Your task to perform on an android device: Turn on the flashlight Image 0: 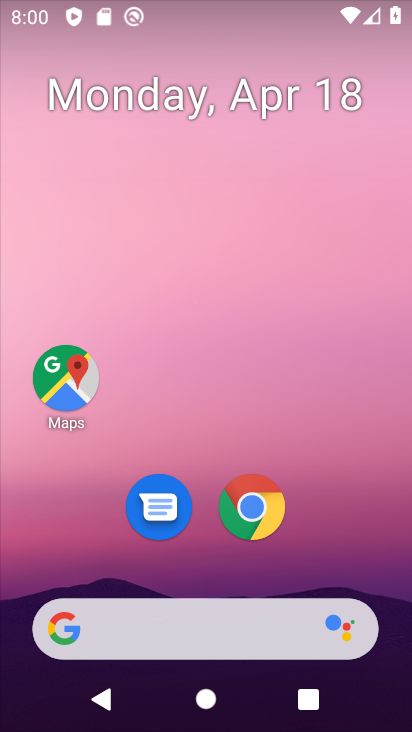
Step 0: drag from (167, 724) to (171, 77)
Your task to perform on an android device: Turn on the flashlight Image 1: 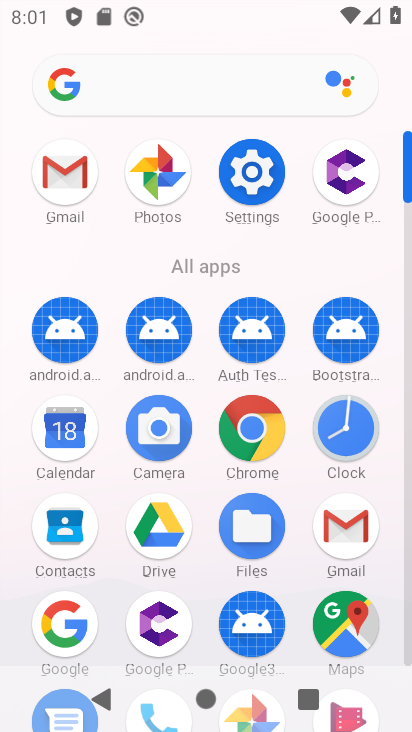
Step 1: click (253, 178)
Your task to perform on an android device: Turn on the flashlight Image 2: 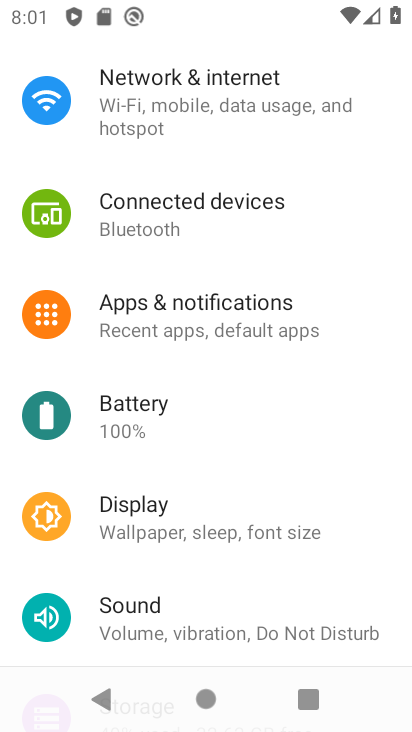
Step 2: drag from (262, 475) to (270, 173)
Your task to perform on an android device: Turn on the flashlight Image 3: 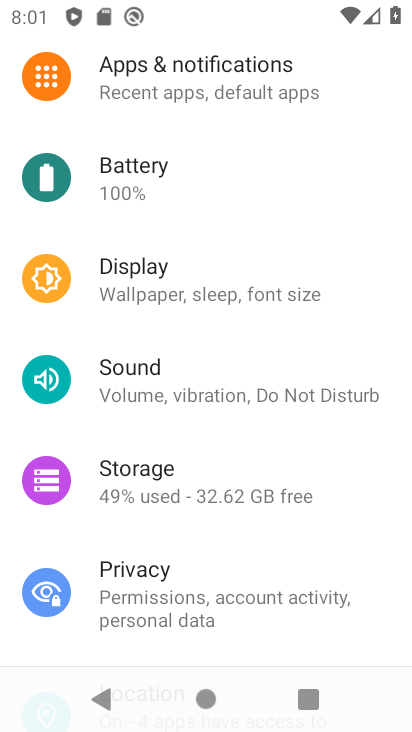
Step 3: drag from (220, 579) to (210, 210)
Your task to perform on an android device: Turn on the flashlight Image 4: 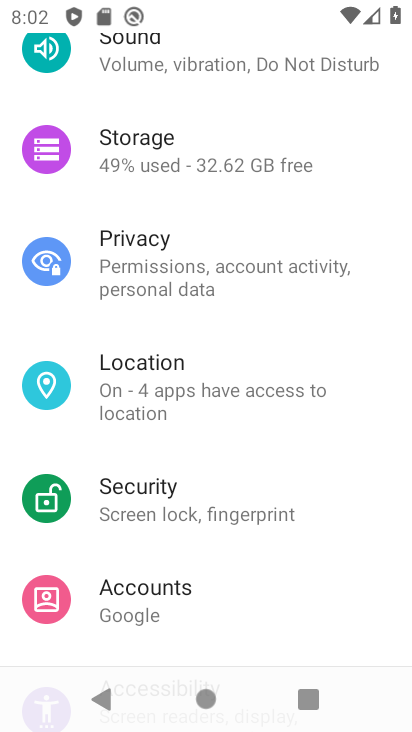
Step 4: drag from (233, 568) to (235, 160)
Your task to perform on an android device: Turn on the flashlight Image 5: 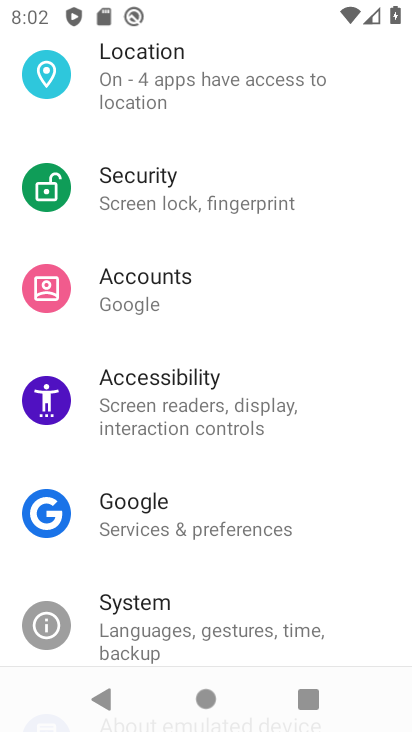
Step 5: click (180, 631)
Your task to perform on an android device: Turn on the flashlight Image 6: 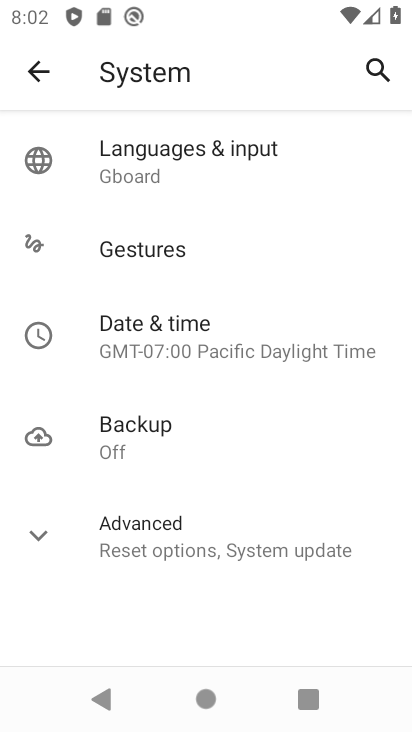
Step 6: click (216, 552)
Your task to perform on an android device: Turn on the flashlight Image 7: 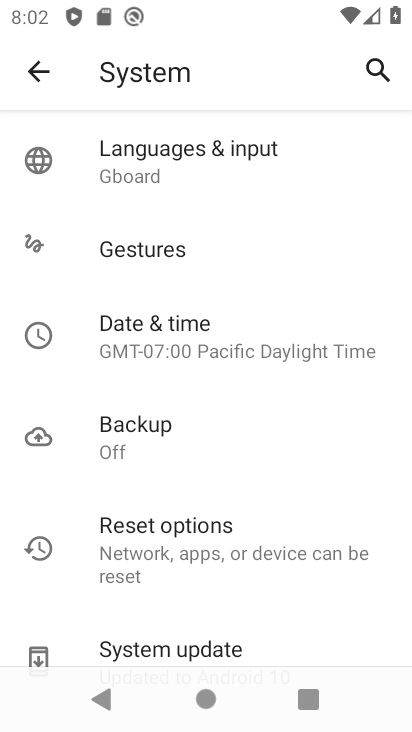
Step 7: click (167, 241)
Your task to perform on an android device: Turn on the flashlight Image 8: 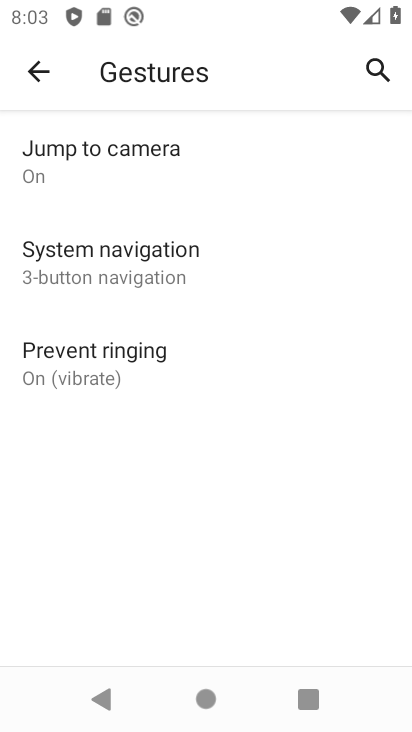
Step 8: task complete